Your task to perform on an android device: see tabs open on other devices in the chrome app Image 0: 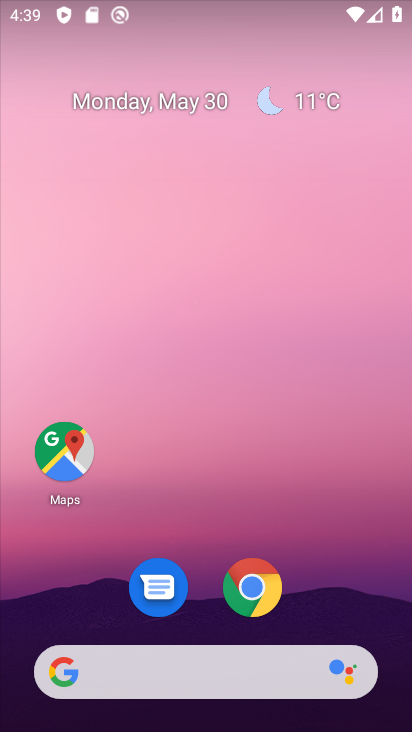
Step 0: drag from (252, 334) to (215, 23)
Your task to perform on an android device: see tabs open on other devices in the chrome app Image 1: 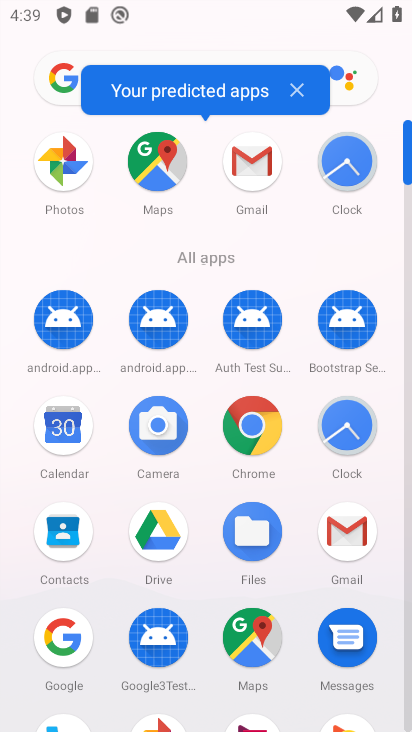
Step 1: drag from (1, 540) to (11, 223)
Your task to perform on an android device: see tabs open on other devices in the chrome app Image 2: 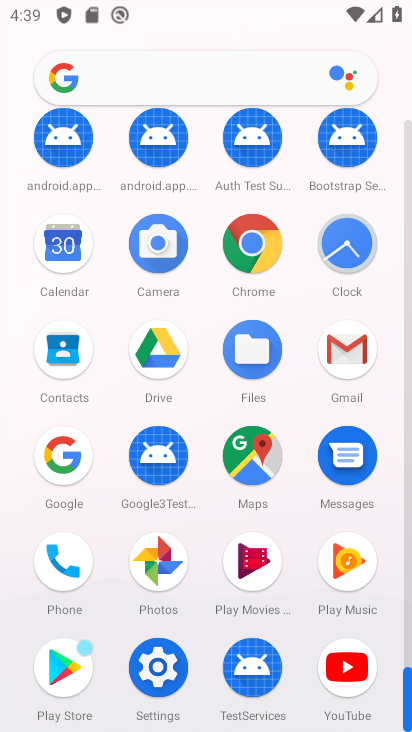
Step 2: click (251, 239)
Your task to perform on an android device: see tabs open on other devices in the chrome app Image 3: 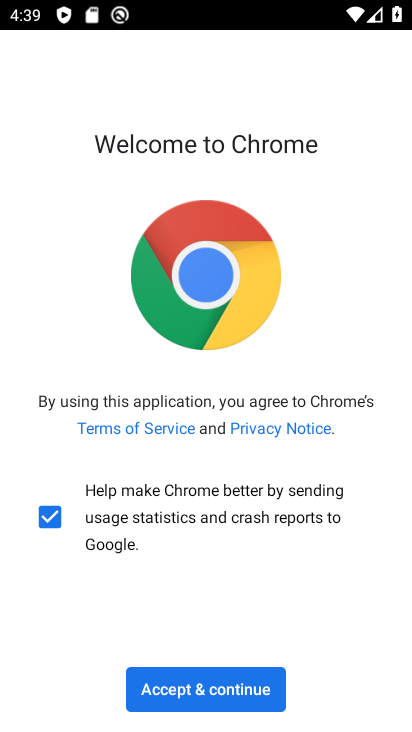
Step 3: click (205, 673)
Your task to perform on an android device: see tabs open on other devices in the chrome app Image 4: 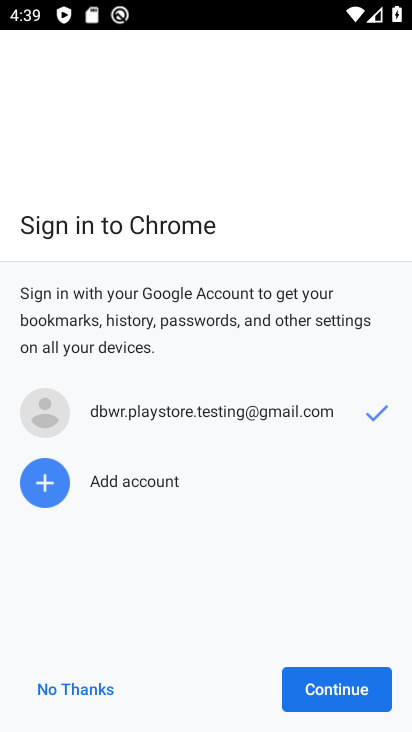
Step 4: click (320, 687)
Your task to perform on an android device: see tabs open on other devices in the chrome app Image 5: 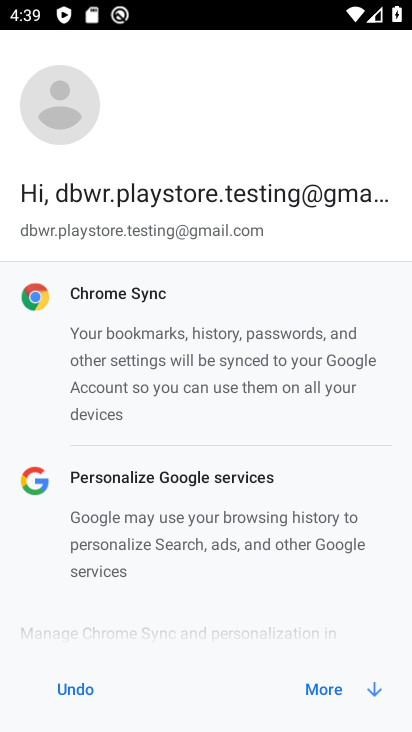
Step 5: click (335, 688)
Your task to perform on an android device: see tabs open on other devices in the chrome app Image 6: 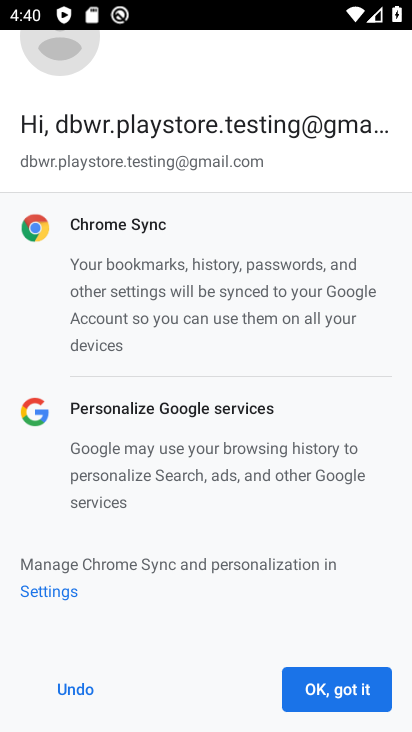
Step 6: click (358, 690)
Your task to perform on an android device: see tabs open on other devices in the chrome app Image 7: 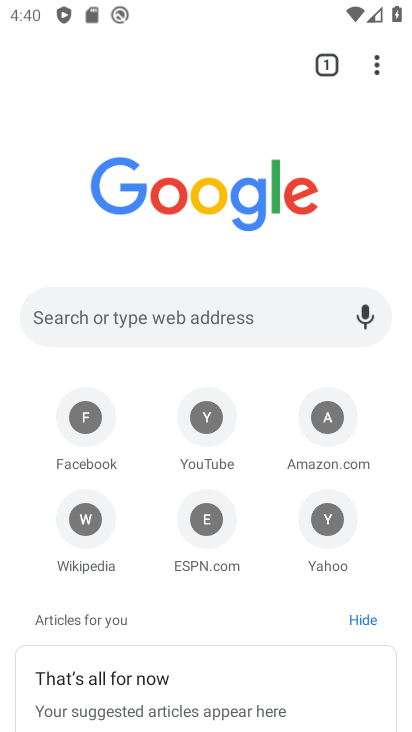
Step 7: task complete